Your task to perform on an android device: Open Android settings Image 0: 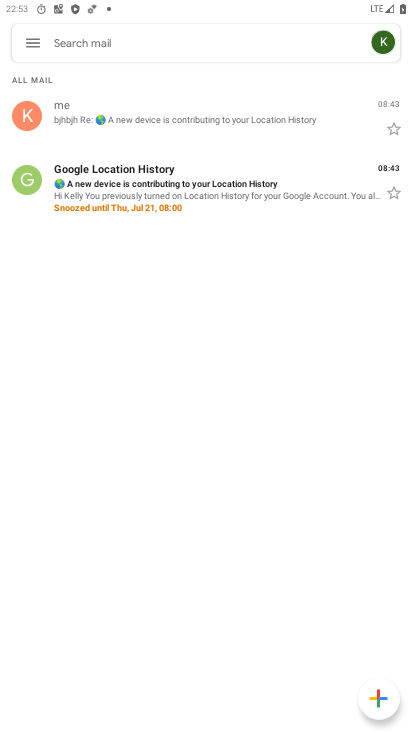
Step 0: press home button
Your task to perform on an android device: Open Android settings Image 1: 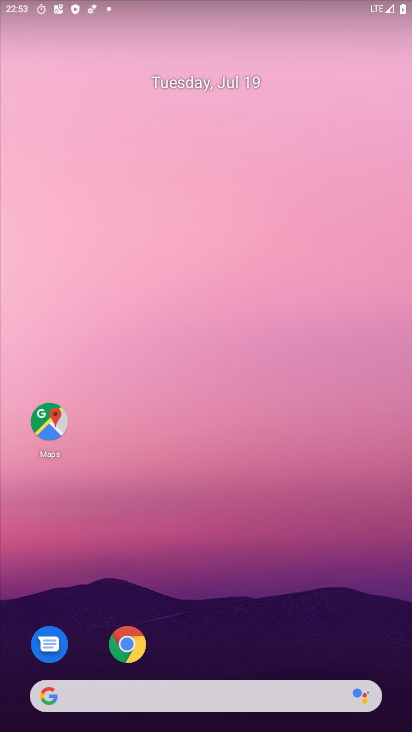
Step 1: drag from (258, 500) to (245, 196)
Your task to perform on an android device: Open Android settings Image 2: 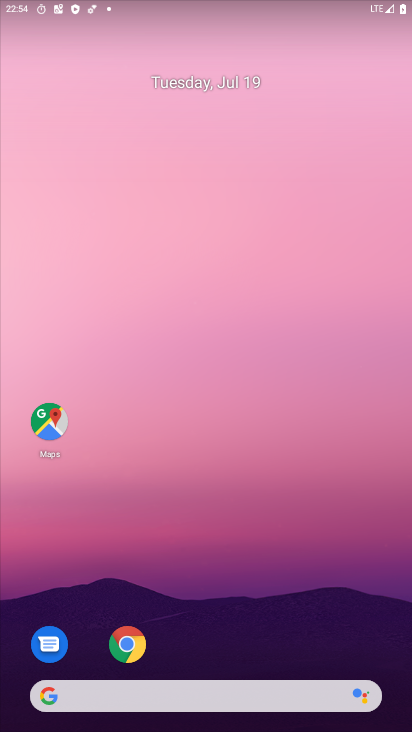
Step 2: drag from (93, 554) to (196, 91)
Your task to perform on an android device: Open Android settings Image 3: 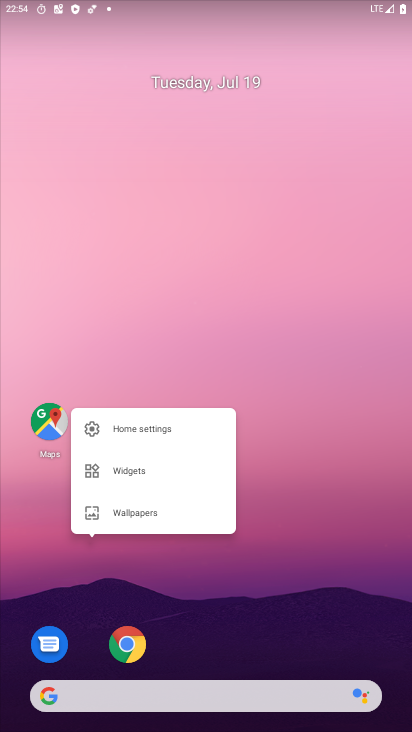
Step 3: click (297, 655)
Your task to perform on an android device: Open Android settings Image 4: 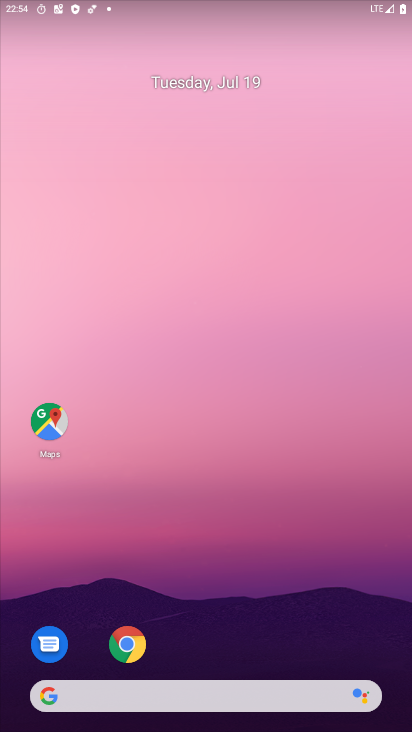
Step 4: drag from (247, 623) to (244, 253)
Your task to perform on an android device: Open Android settings Image 5: 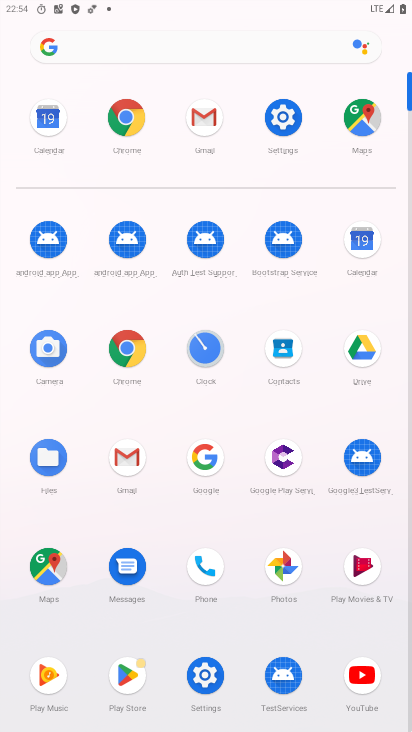
Step 5: click (197, 681)
Your task to perform on an android device: Open Android settings Image 6: 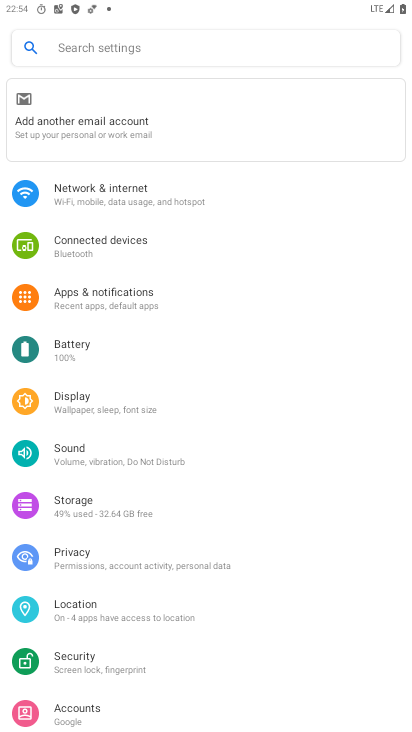
Step 6: drag from (166, 595) to (163, 22)
Your task to perform on an android device: Open Android settings Image 7: 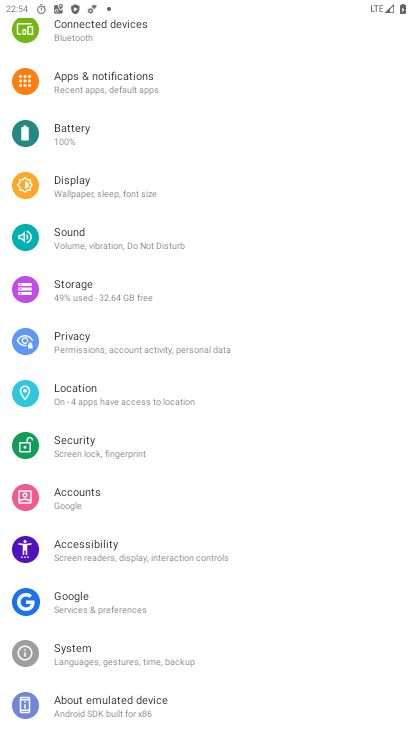
Step 7: click (89, 723)
Your task to perform on an android device: Open Android settings Image 8: 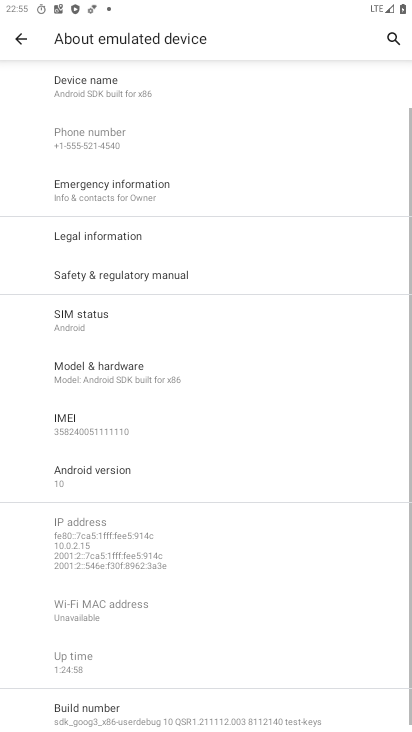
Step 8: click (122, 478)
Your task to perform on an android device: Open Android settings Image 9: 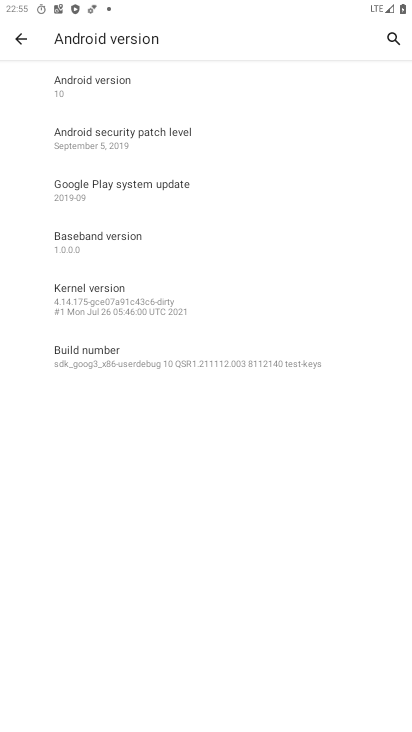
Step 9: task complete